Your task to perform on an android device: What's the weather? Image 0: 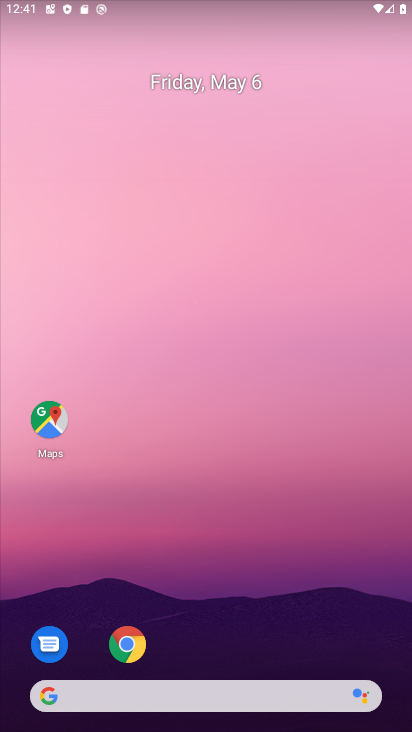
Step 0: drag from (280, 711) to (261, 82)
Your task to perform on an android device: What's the weather? Image 1: 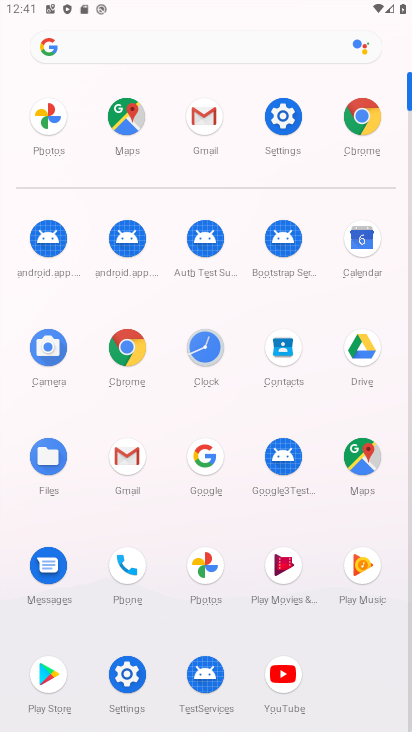
Step 1: click (122, 353)
Your task to perform on an android device: What's the weather? Image 2: 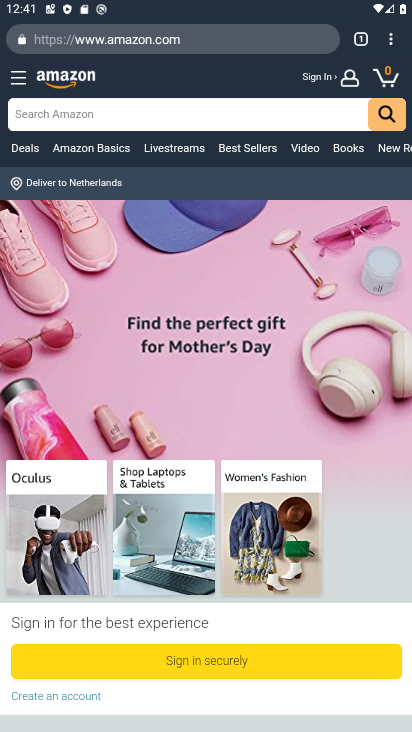
Step 2: click (275, 34)
Your task to perform on an android device: What's the weather? Image 3: 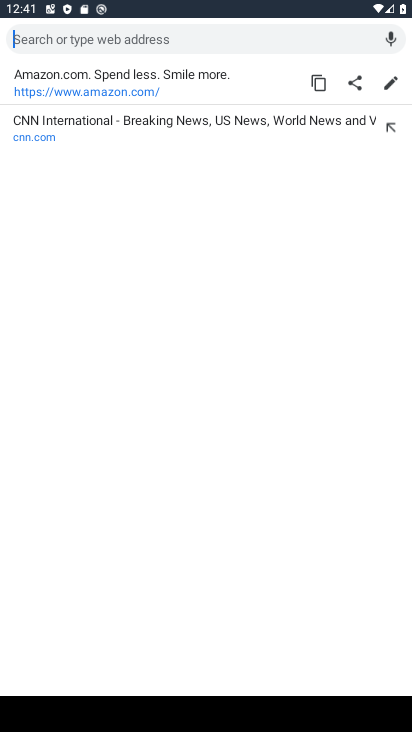
Step 3: type "weather"
Your task to perform on an android device: What's the weather? Image 4: 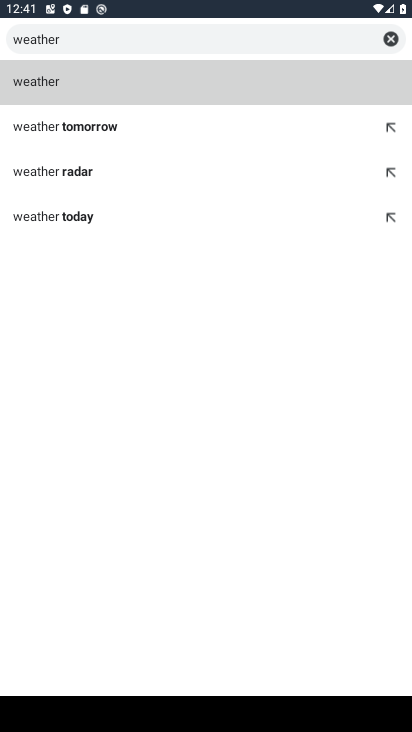
Step 4: click (83, 77)
Your task to perform on an android device: What's the weather? Image 5: 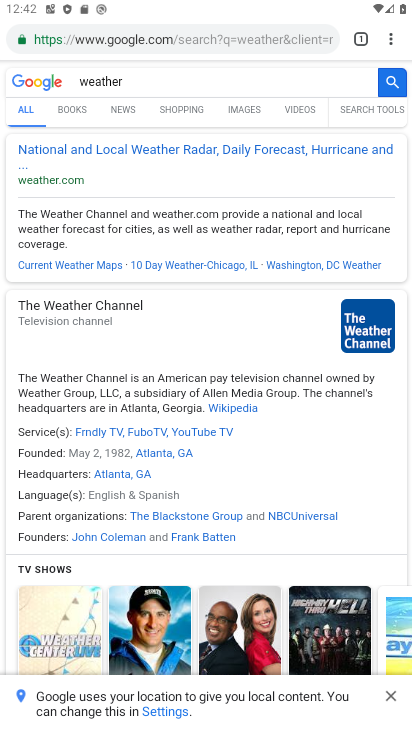
Step 5: drag from (362, 557) to (318, 75)
Your task to perform on an android device: What's the weather? Image 6: 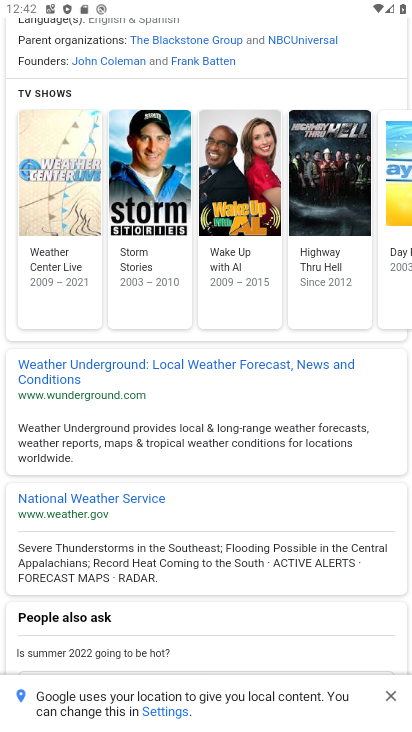
Step 6: drag from (318, 610) to (395, 728)
Your task to perform on an android device: What's the weather? Image 7: 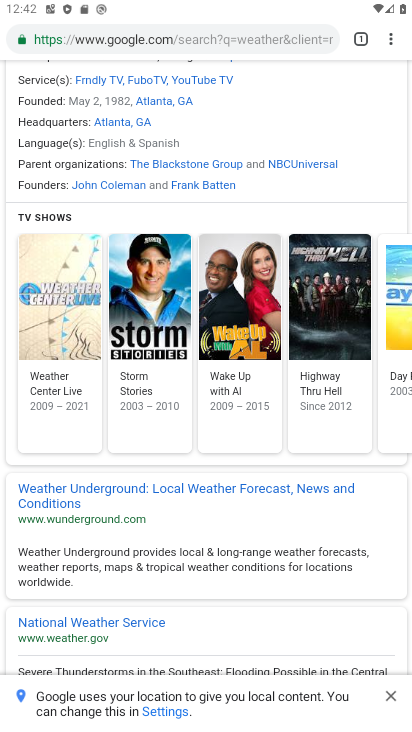
Step 7: drag from (317, 199) to (230, 539)
Your task to perform on an android device: What's the weather? Image 8: 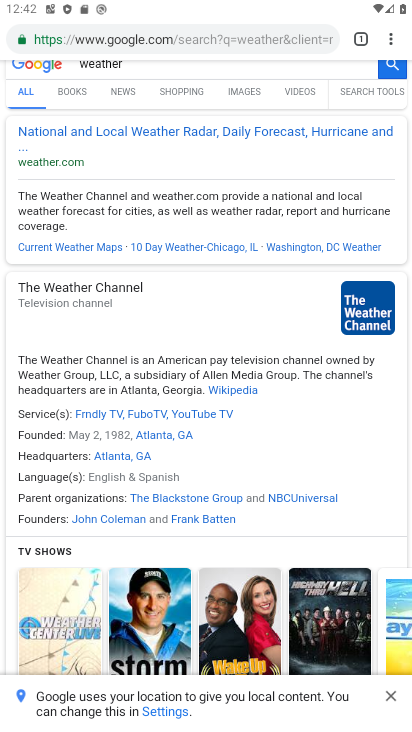
Step 8: drag from (208, 234) to (212, 569)
Your task to perform on an android device: What's the weather? Image 9: 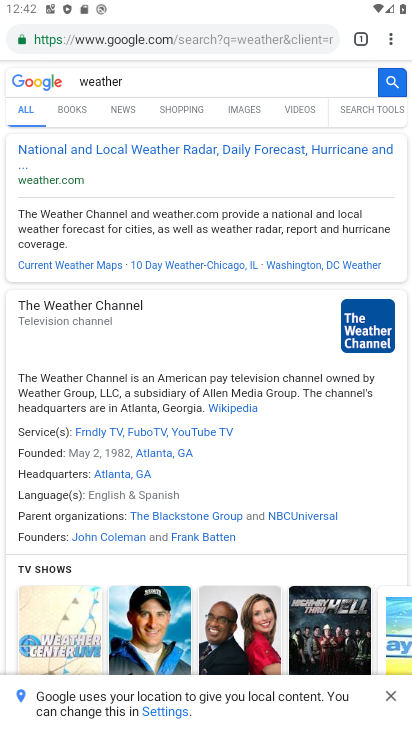
Step 9: click (141, 81)
Your task to perform on an android device: What's the weather? Image 10: 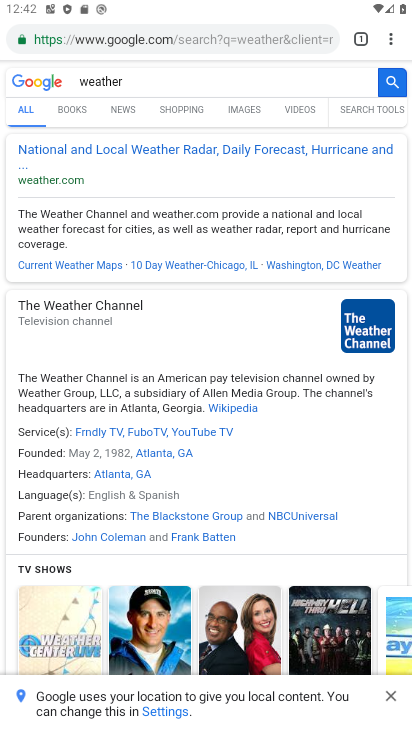
Step 10: click (141, 81)
Your task to perform on an android device: What's the weather? Image 11: 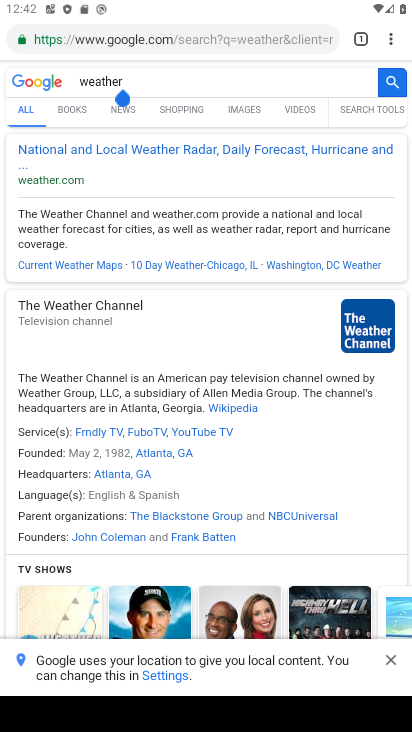
Step 11: type " today"
Your task to perform on an android device: What's the weather? Image 12: 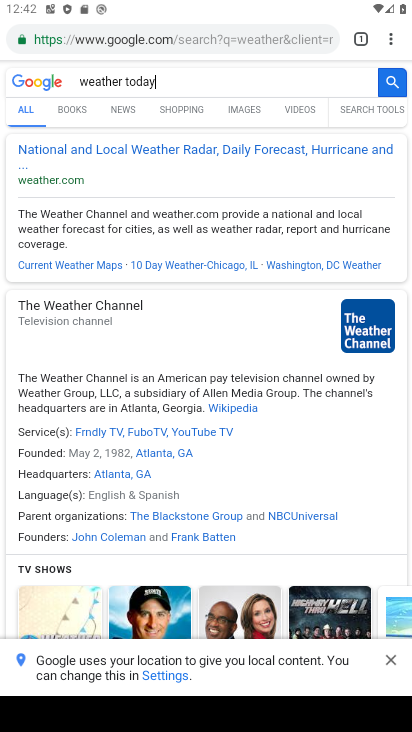
Step 12: click (401, 84)
Your task to perform on an android device: What's the weather? Image 13: 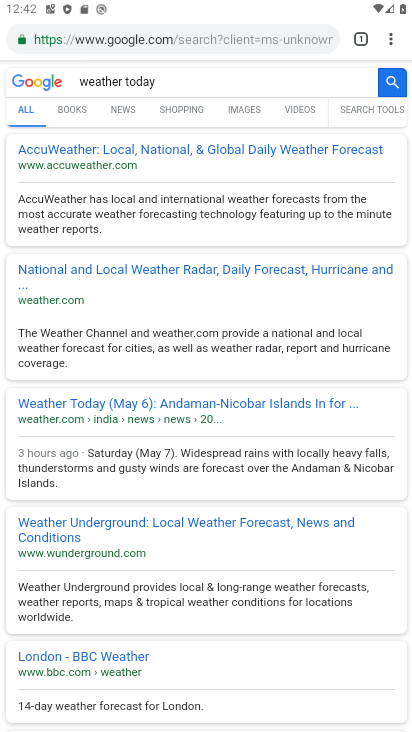
Step 13: task complete